Your task to perform on an android device: What is the recent news? Image 0: 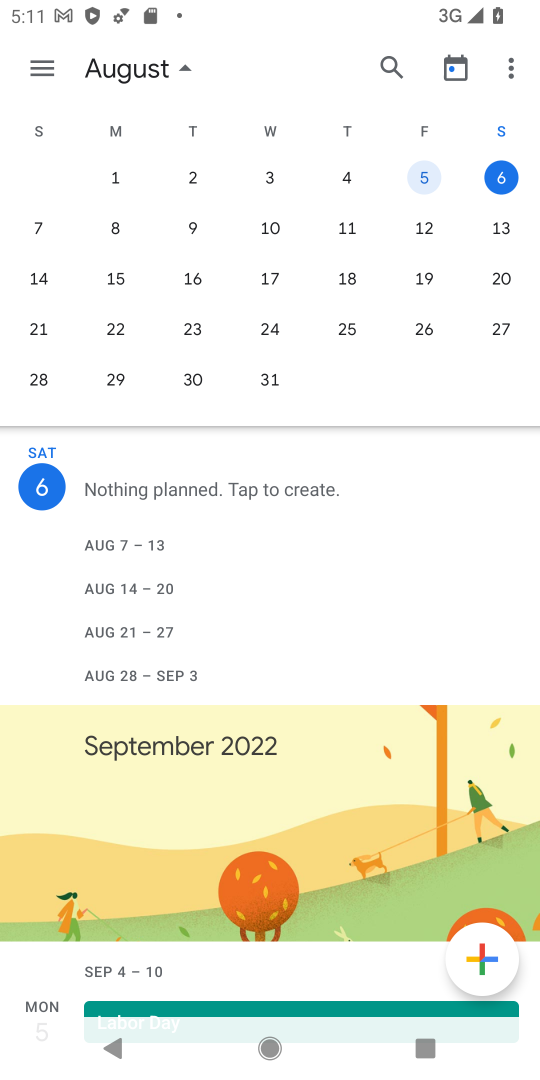
Step 0: press home button
Your task to perform on an android device: What is the recent news? Image 1: 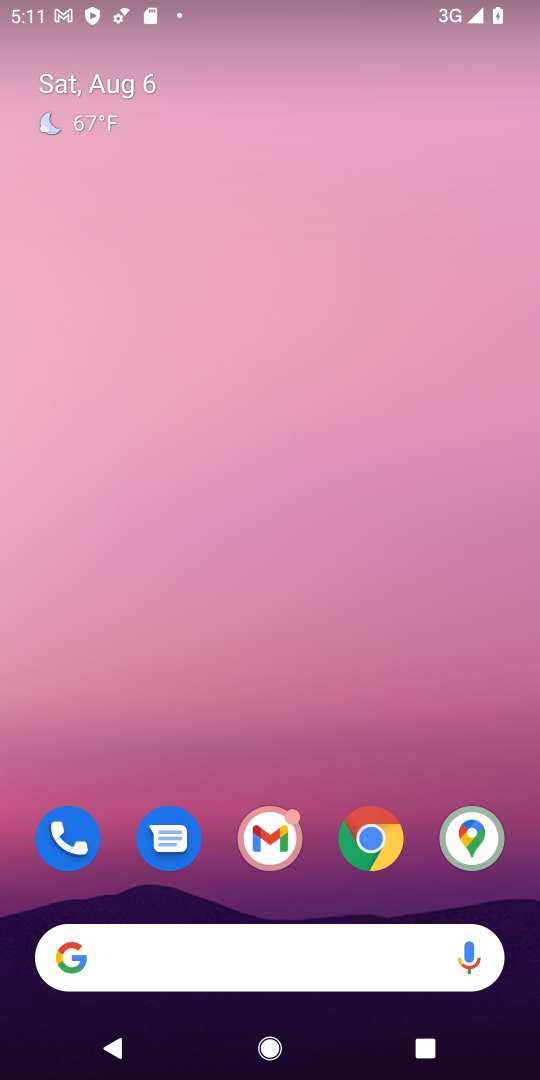
Step 1: click (243, 945)
Your task to perform on an android device: What is the recent news? Image 2: 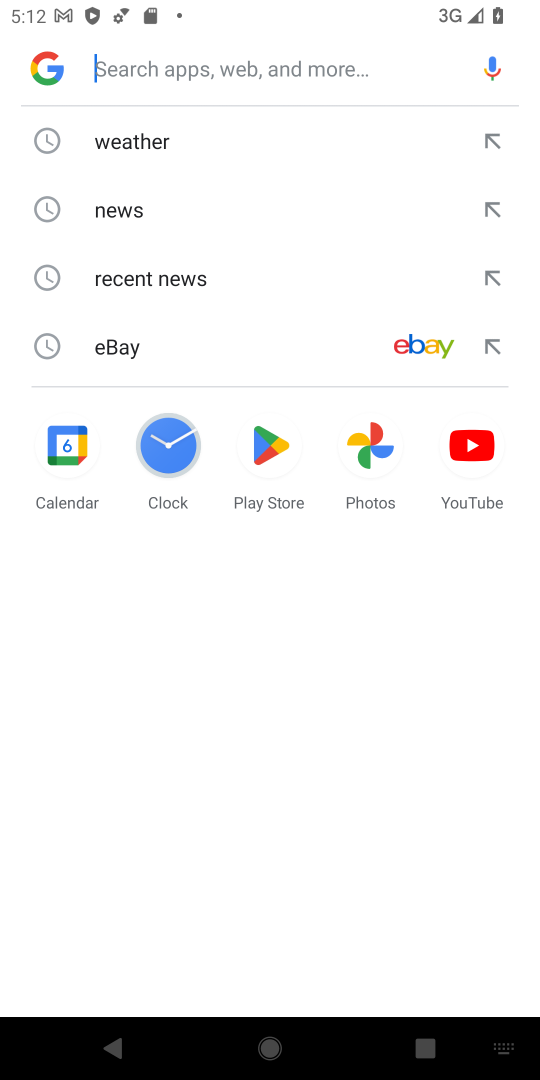
Step 2: click (93, 207)
Your task to perform on an android device: What is the recent news? Image 3: 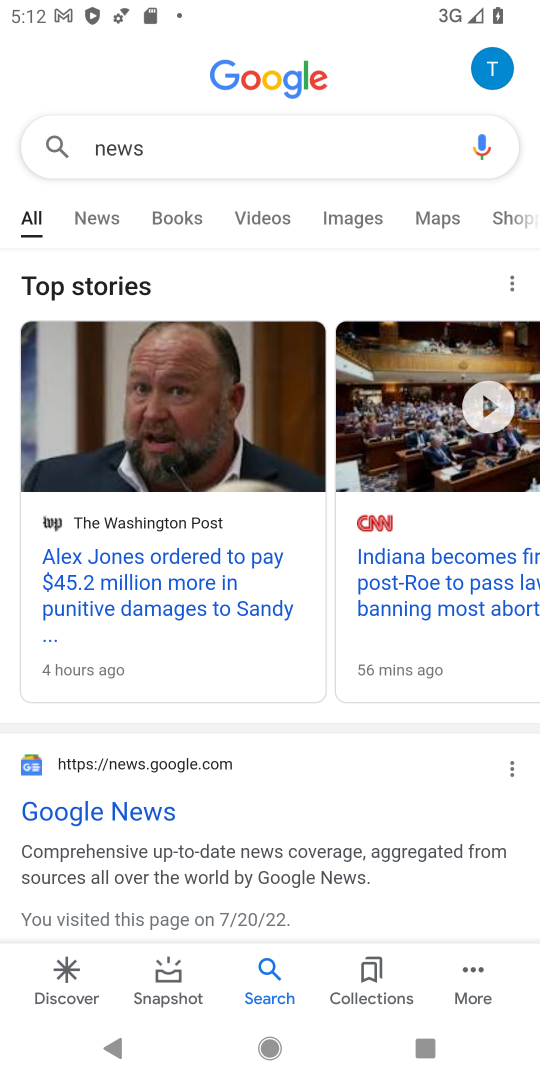
Step 3: task complete